Your task to perform on an android device: Open battery settings Image 0: 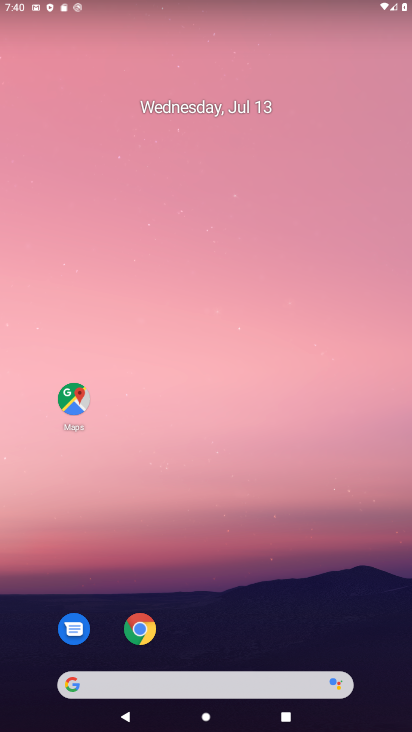
Step 0: drag from (200, 636) to (204, 102)
Your task to perform on an android device: Open battery settings Image 1: 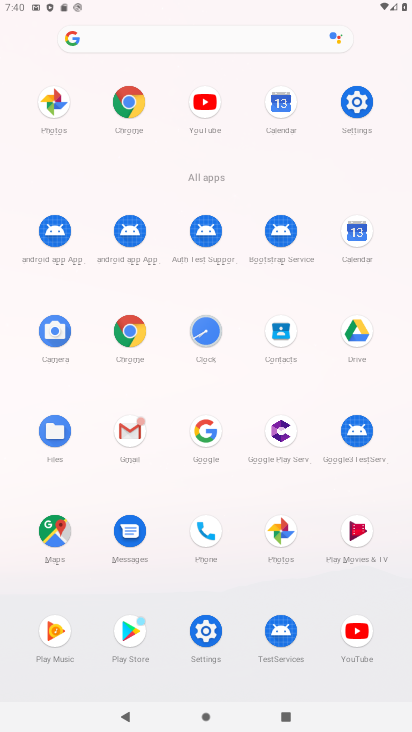
Step 1: click (207, 630)
Your task to perform on an android device: Open battery settings Image 2: 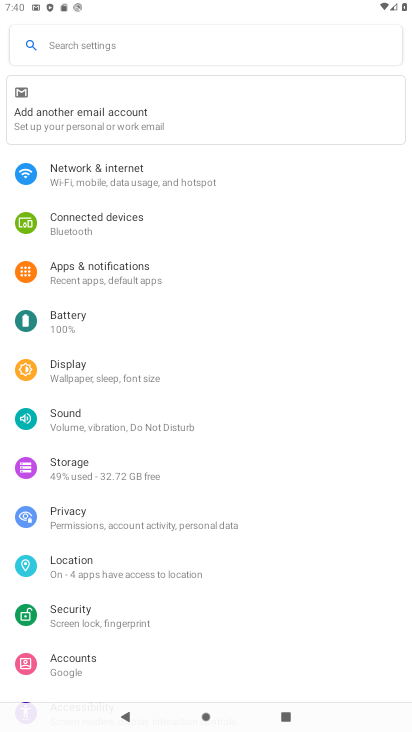
Step 2: drag from (175, 596) to (206, 221)
Your task to perform on an android device: Open battery settings Image 3: 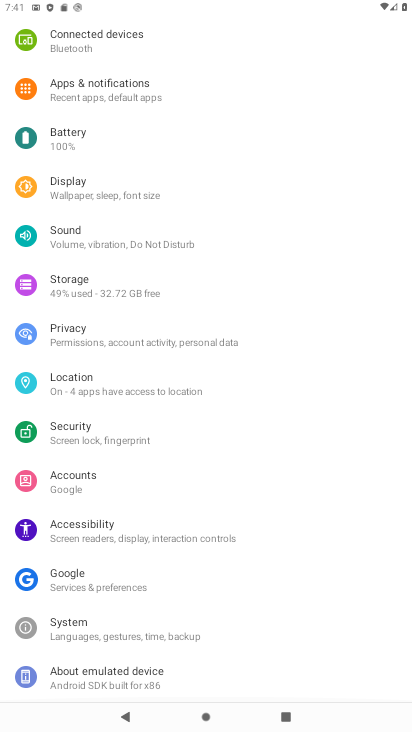
Step 3: drag from (152, 128) to (184, 332)
Your task to perform on an android device: Open battery settings Image 4: 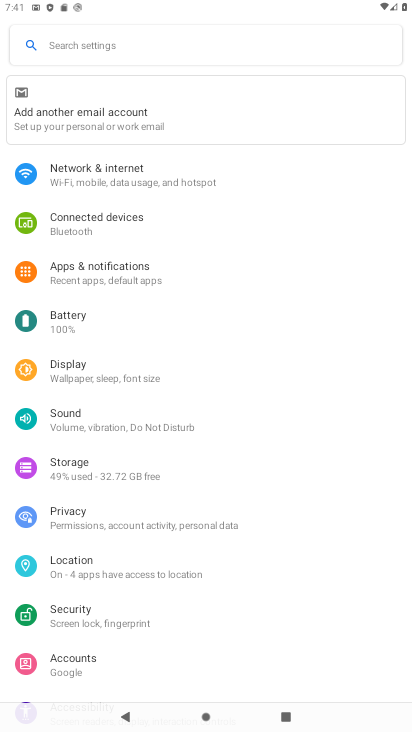
Step 4: click (87, 322)
Your task to perform on an android device: Open battery settings Image 5: 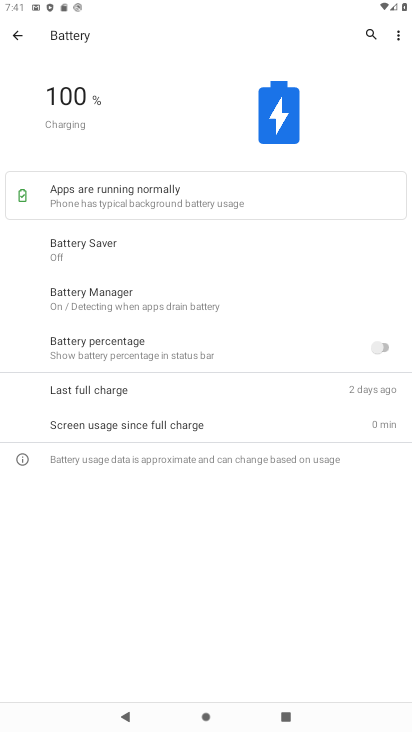
Step 5: task complete